Your task to perform on an android device: Open calendar and show me the third week of next month Image 0: 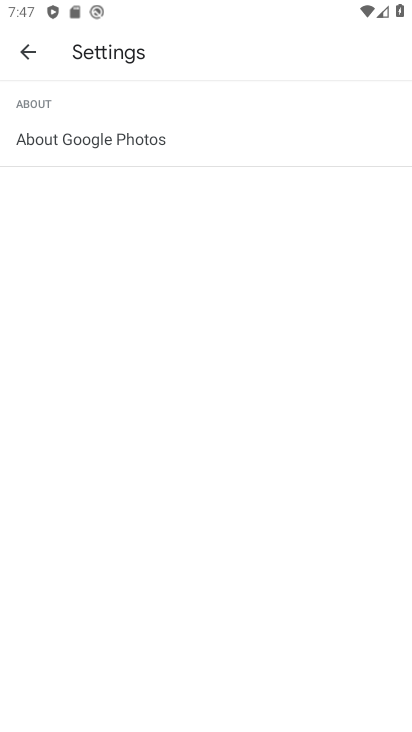
Step 0: press home button
Your task to perform on an android device: Open calendar and show me the third week of next month Image 1: 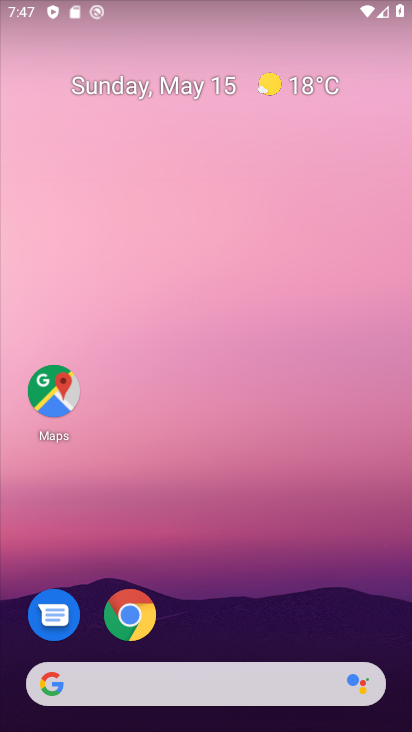
Step 1: drag from (37, 496) to (237, 142)
Your task to perform on an android device: Open calendar and show me the third week of next month Image 2: 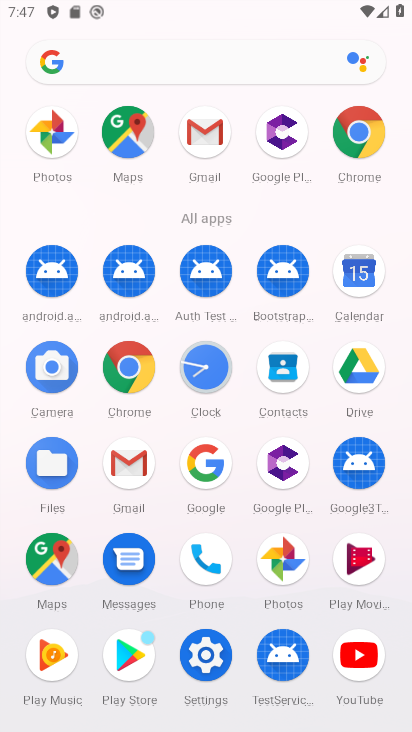
Step 2: click (370, 278)
Your task to perform on an android device: Open calendar and show me the third week of next month Image 3: 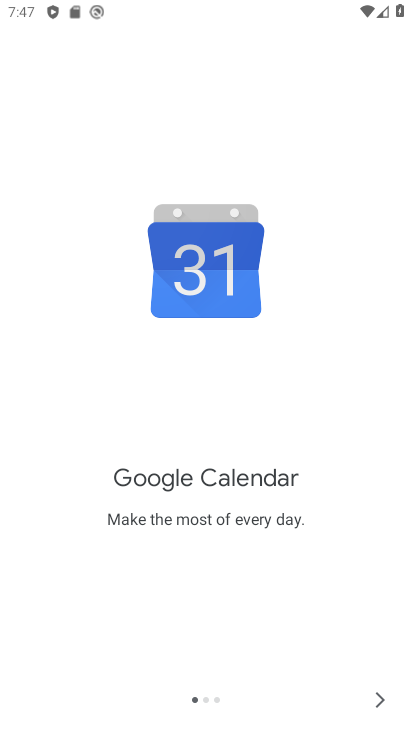
Step 3: click (374, 705)
Your task to perform on an android device: Open calendar and show me the third week of next month Image 4: 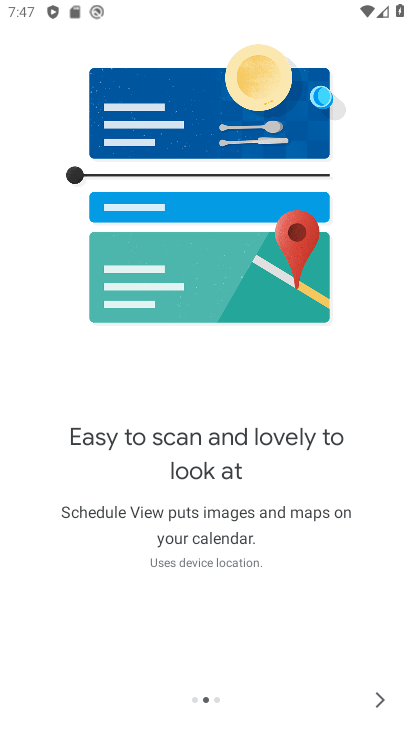
Step 4: click (374, 705)
Your task to perform on an android device: Open calendar and show me the third week of next month Image 5: 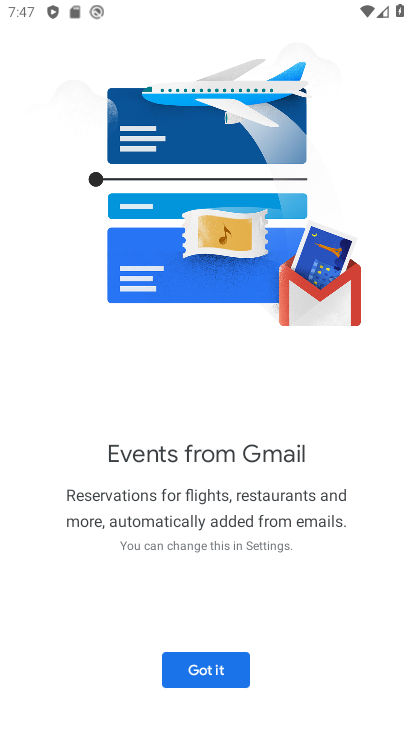
Step 5: click (203, 668)
Your task to perform on an android device: Open calendar and show me the third week of next month Image 6: 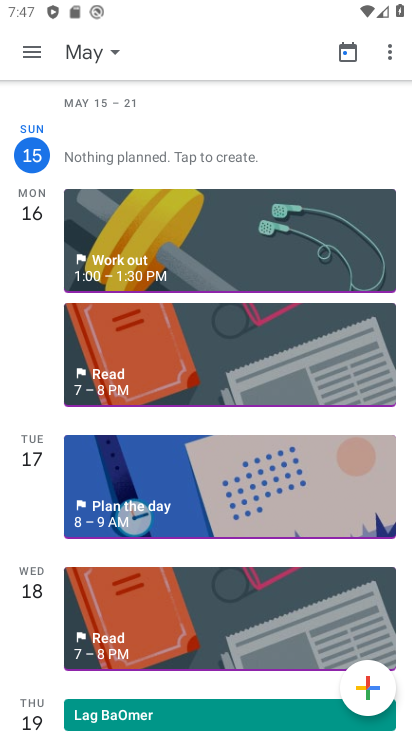
Step 6: click (84, 54)
Your task to perform on an android device: Open calendar and show me the third week of next month Image 7: 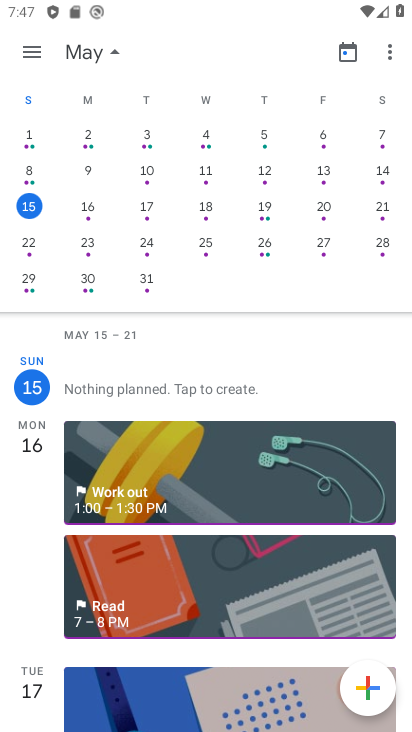
Step 7: drag from (323, 224) to (0, 198)
Your task to perform on an android device: Open calendar and show me the third week of next month Image 8: 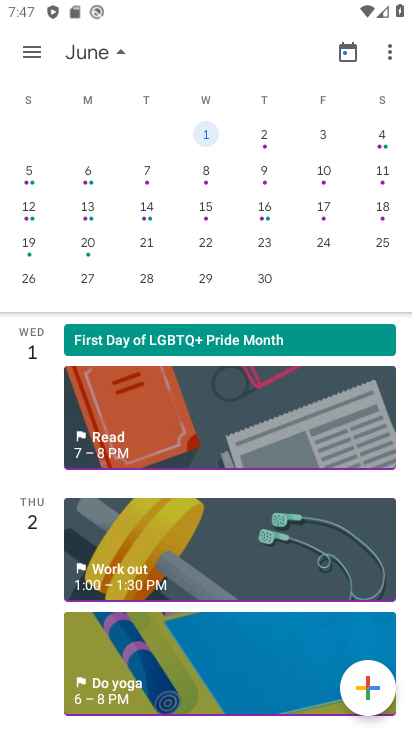
Step 8: click (212, 211)
Your task to perform on an android device: Open calendar and show me the third week of next month Image 9: 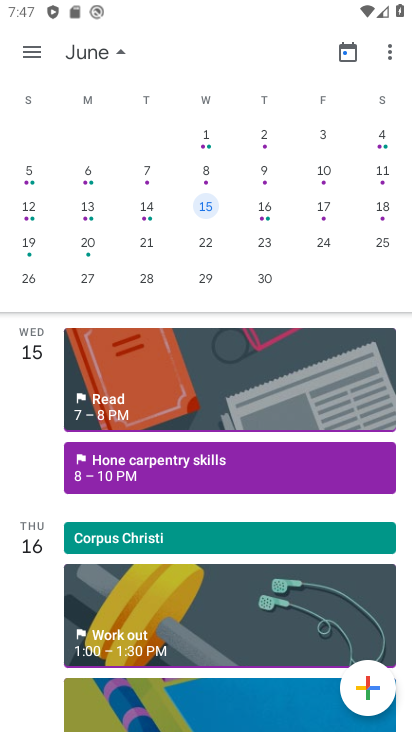
Step 9: click (139, 214)
Your task to perform on an android device: Open calendar and show me the third week of next month Image 10: 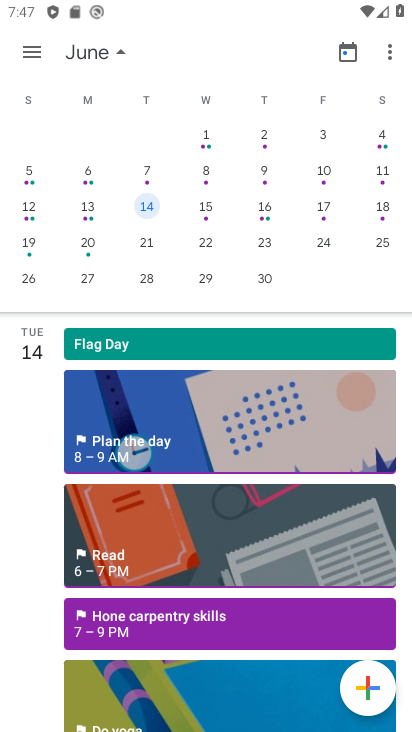
Step 10: click (261, 211)
Your task to perform on an android device: Open calendar and show me the third week of next month Image 11: 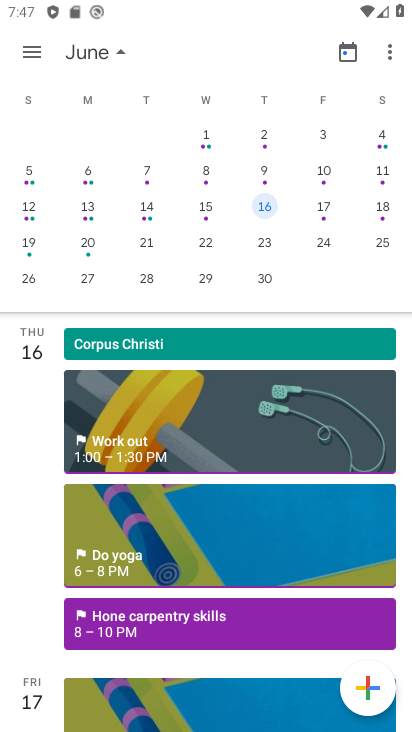
Step 11: task complete